Your task to perform on an android device: set default search engine in the chrome app Image 0: 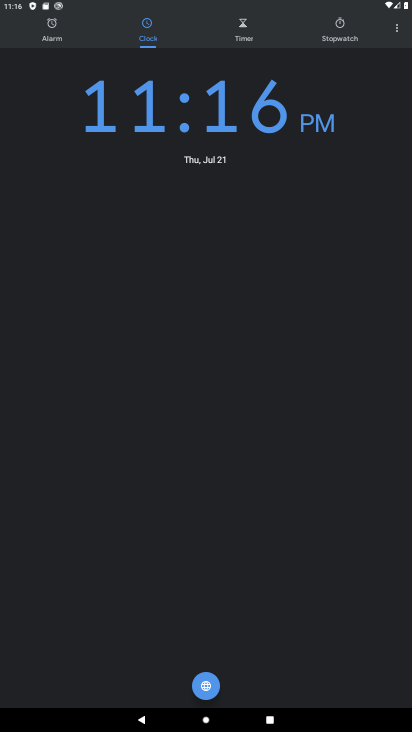
Step 0: click (59, 36)
Your task to perform on an android device: set default search engine in the chrome app Image 1: 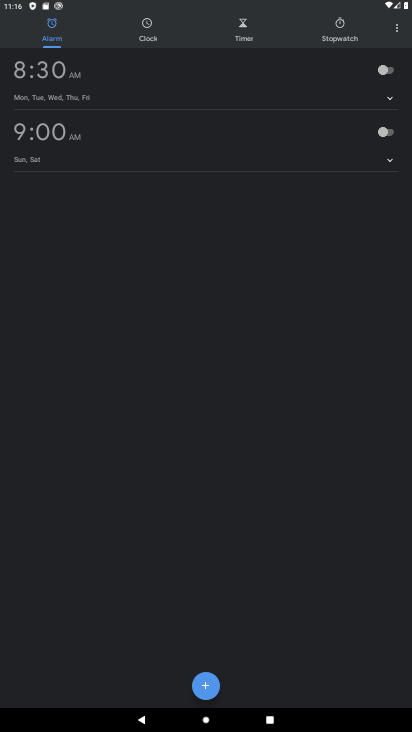
Step 1: press home button
Your task to perform on an android device: set default search engine in the chrome app Image 2: 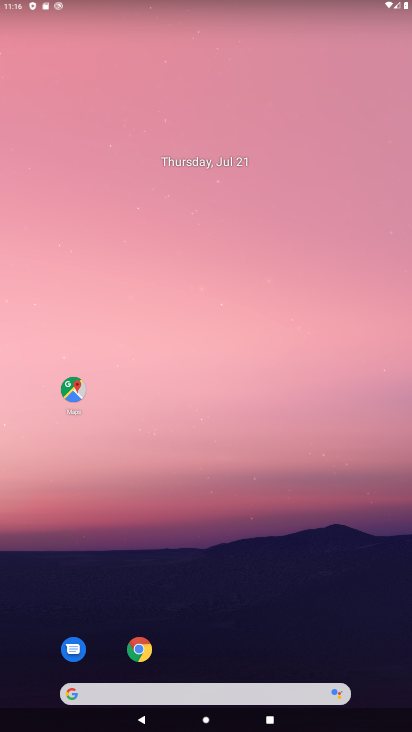
Step 2: drag from (224, 692) to (304, 65)
Your task to perform on an android device: set default search engine in the chrome app Image 3: 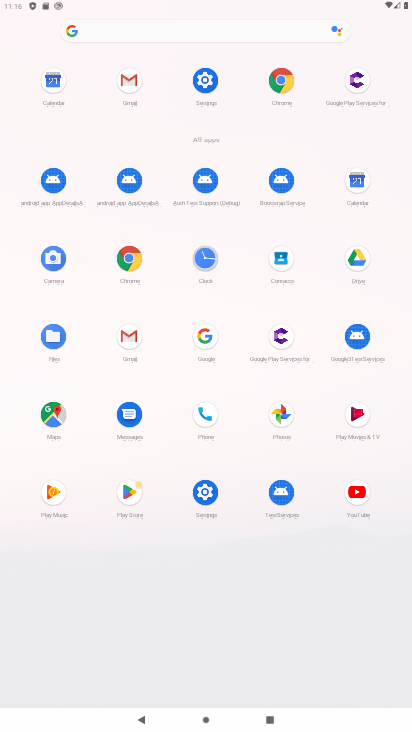
Step 3: click (132, 267)
Your task to perform on an android device: set default search engine in the chrome app Image 4: 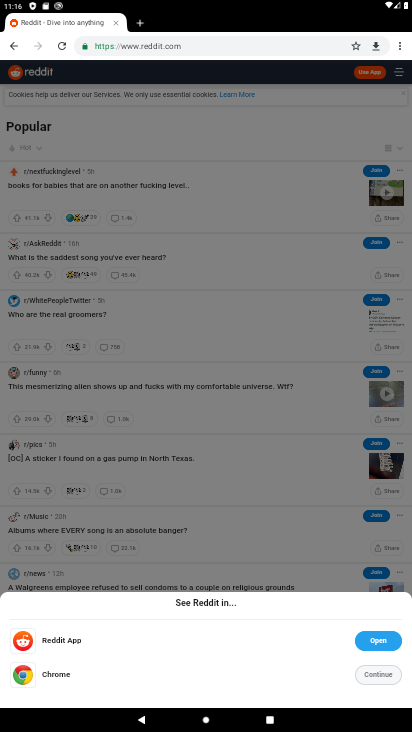
Step 4: drag from (396, 44) to (303, 309)
Your task to perform on an android device: set default search engine in the chrome app Image 5: 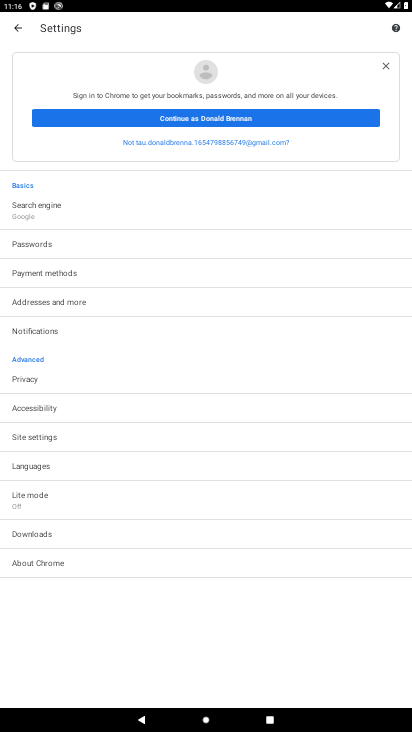
Step 5: click (34, 221)
Your task to perform on an android device: set default search engine in the chrome app Image 6: 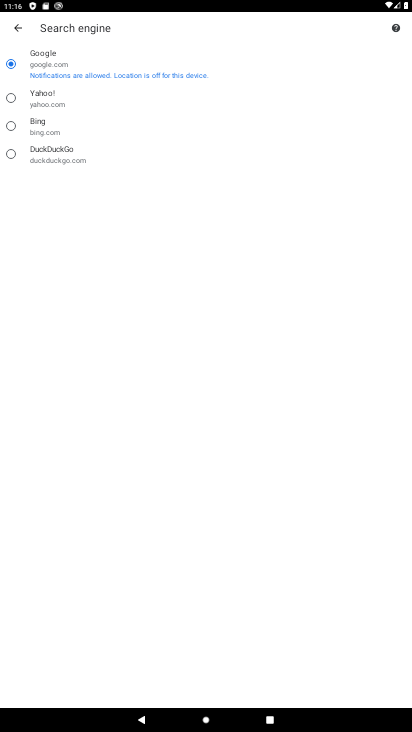
Step 6: task complete